Your task to perform on an android device: turn on the 24-hour format for clock Image 0: 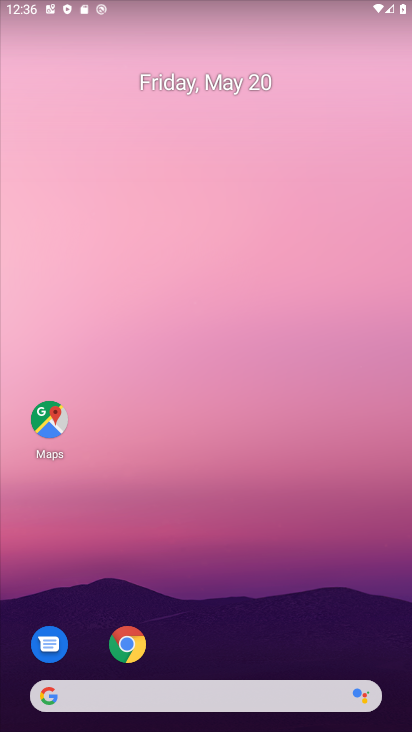
Step 0: drag from (321, 650) to (277, 1)
Your task to perform on an android device: turn on the 24-hour format for clock Image 1: 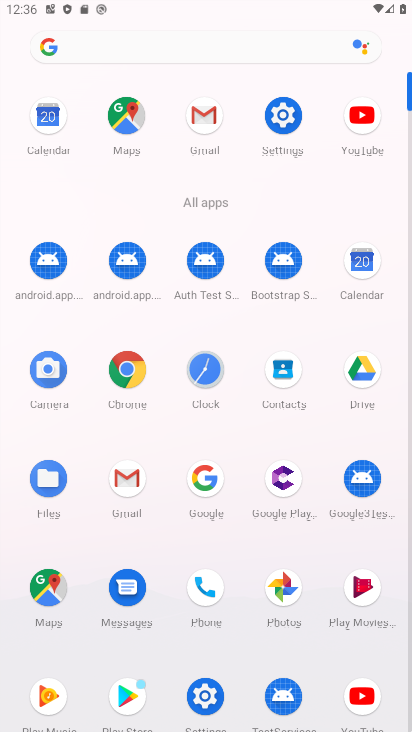
Step 1: click (202, 377)
Your task to perform on an android device: turn on the 24-hour format for clock Image 2: 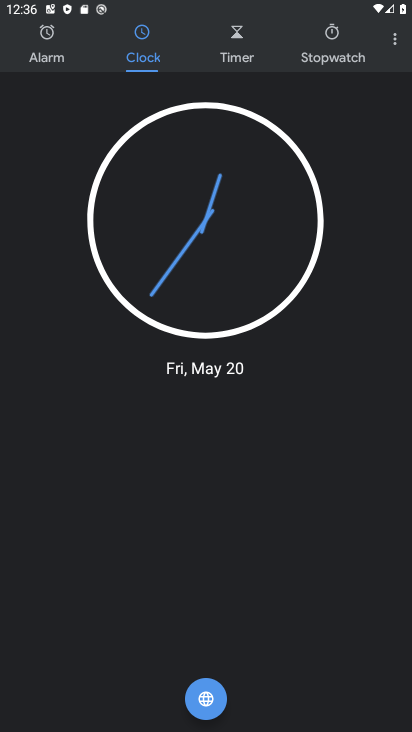
Step 2: click (393, 45)
Your task to perform on an android device: turn on the 24-hour format for clock Image 3: 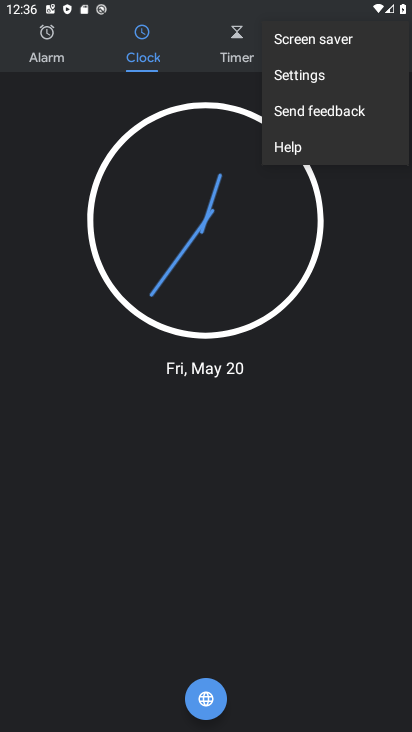
Step 3: click (294, 80)
Your task to perform on an android device: turn on the 24-hour format for clock Image 4: 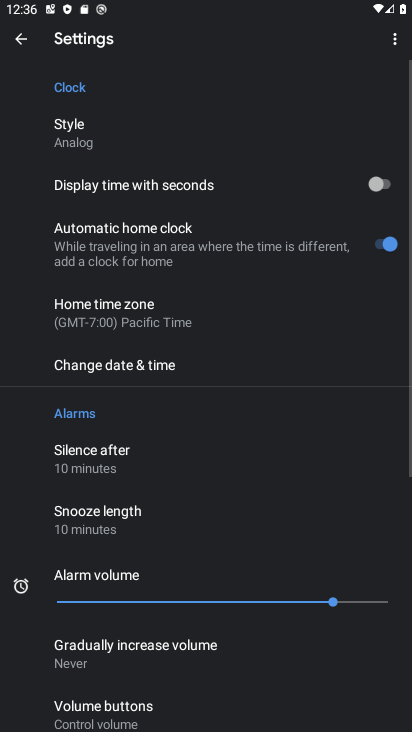
Step 4: click (166, 367)
Your task to perform on an android device: turn on the 24-hour format for clock Image 5: 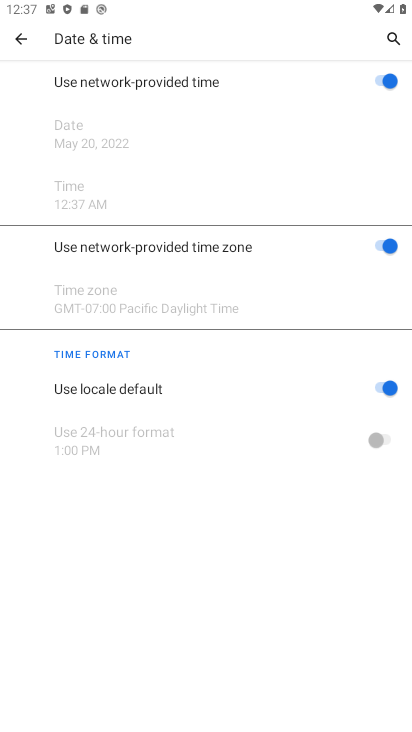
Step 5: click (382, 440)
Your task to perform on an android device: turn on the 24-hour format for clock Image 6: 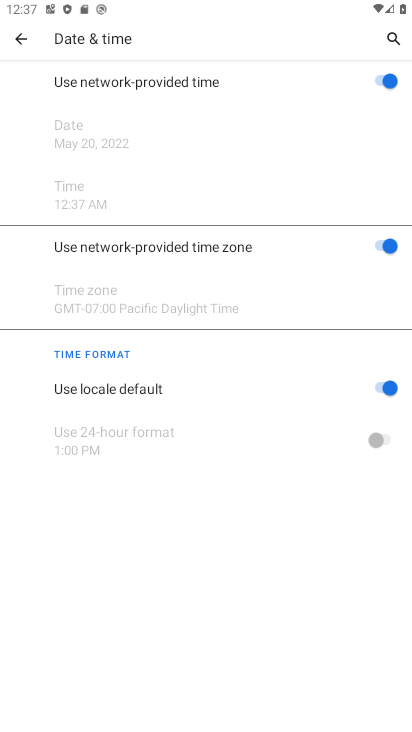
Step 6: click (388, 389)
Your task to perform on an android device: turn on the 24-hour format for clock Image 7: 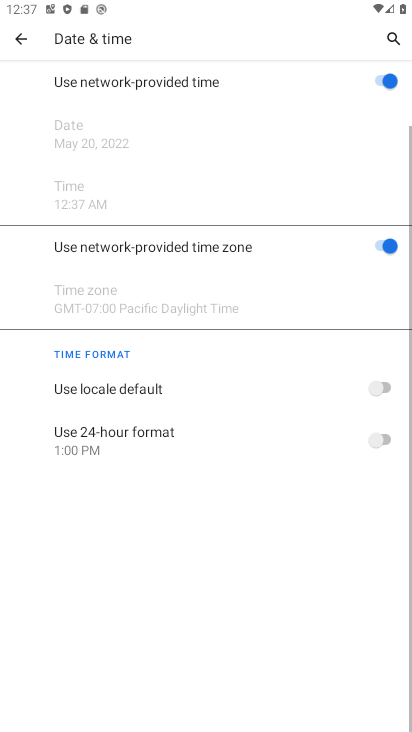
Step 7: click (374, 444)
Your task to perform on an android device: turn on the 24-hour format for clock Image 8: 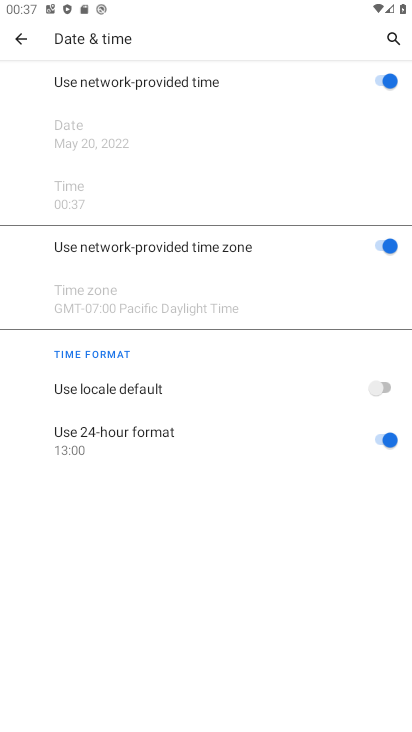
Step 8: task complete